Your task to perform on an android device: Search for Italian restaurants on Maps Image 0: 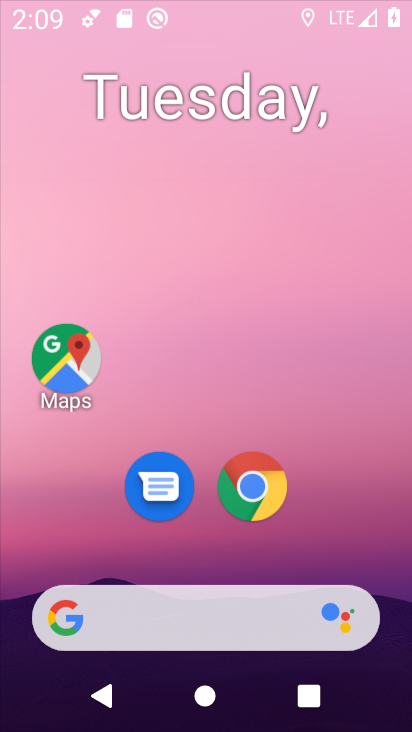
Step 0: press home button
Your task to perform on an android device: Search for Italian restaurants on Maps Image 1: 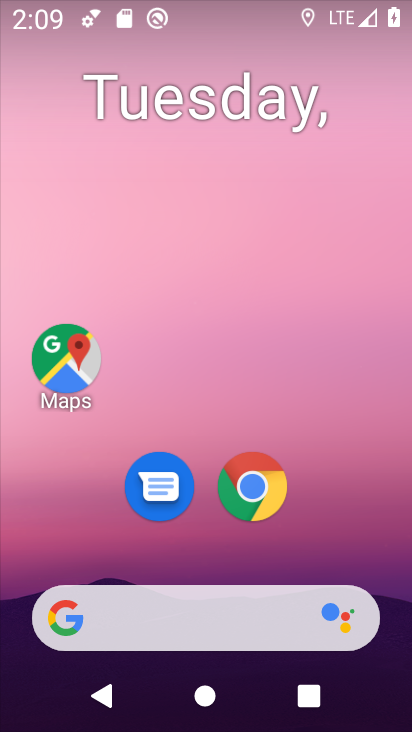
Step 1: drag from (338, 531) to (373, 105)
Your task to perform on an android device: Search for Italian restaurants on Maps Image 2: 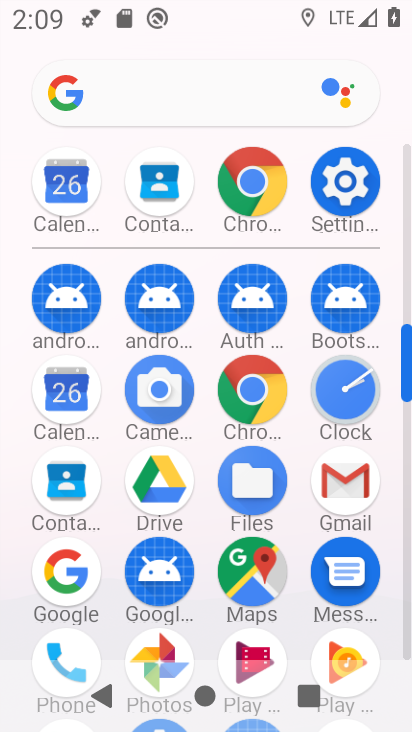
Step 2: click (255, 568)
Your task to perform on an android device: Search for Italian restaurants on Maps Image 3: 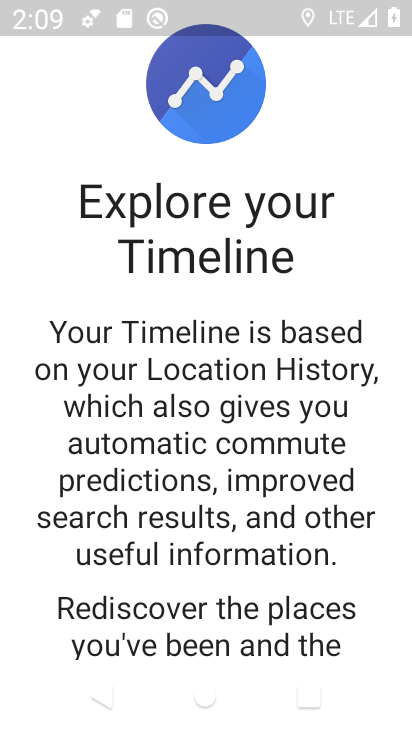
Step 3: press back button
Your task to perform on an android device: Search for Italian restaurants on Maps Image 4: 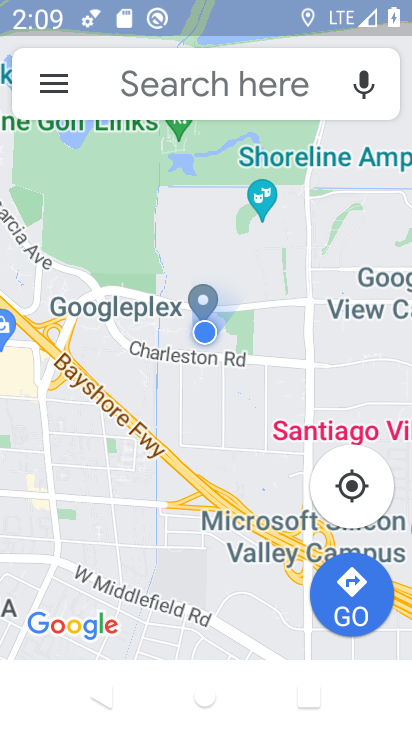
Step 4: click (200, 68)
Your task to perform on an android device: Search for Italian restaurants on Maps Image 5: 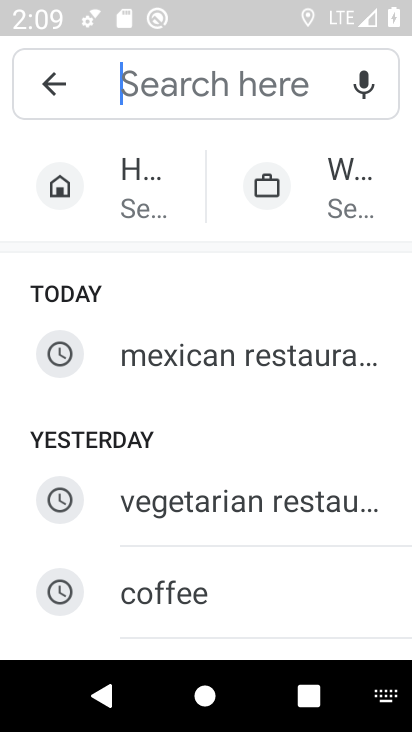
Step 5: type "italian restauramts"
Your task to perform on an android device: Search for Italian restaurants on Maps Image 6: 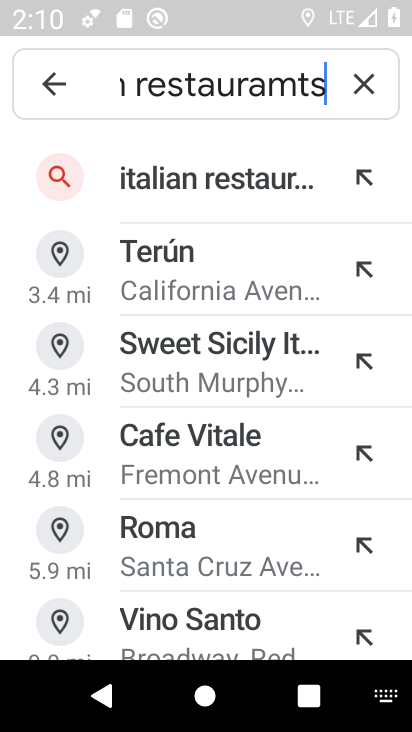
Step 6: click (317, 204)
Your task to perform on an android device: Search for Italian restaurants on Maps Image 7: 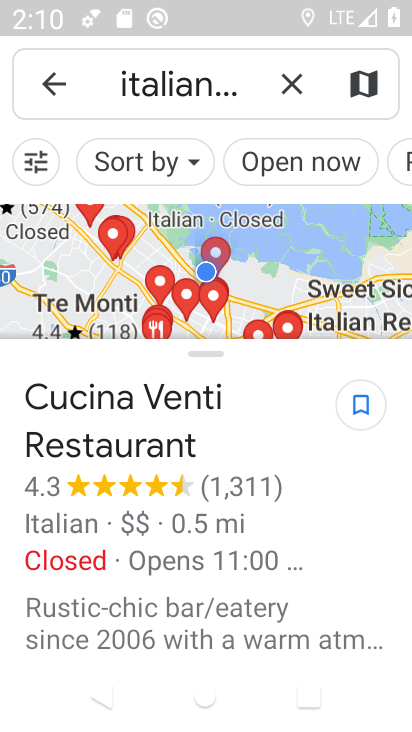
Step 7: task complete